Your task to perform on an android device: Show me popular games on the Play Store Image 0: 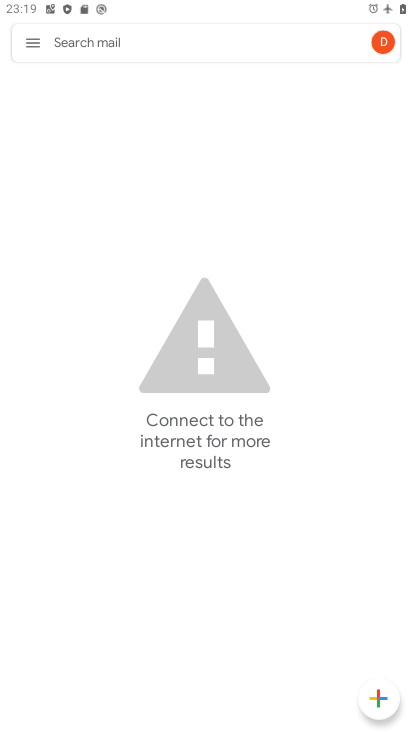
Step 0: press home button
Your task to perform on an android device: Show me popular games on the Play Store Image 1: 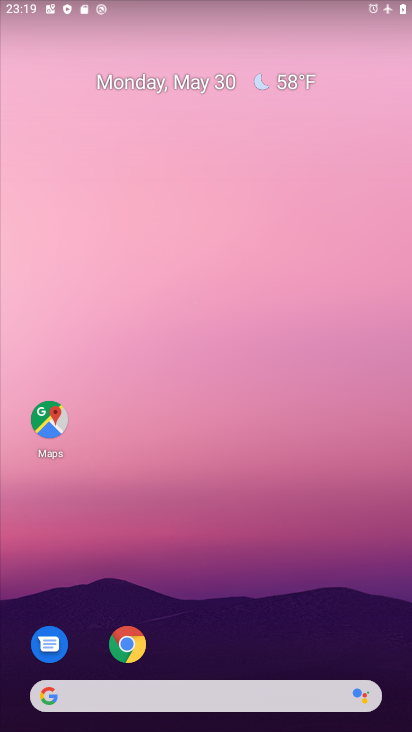
Step 1: drag from (380, 656) to (331, 91)
Your task to perform on an android device: Show me popular games on the Play Store Image 2: 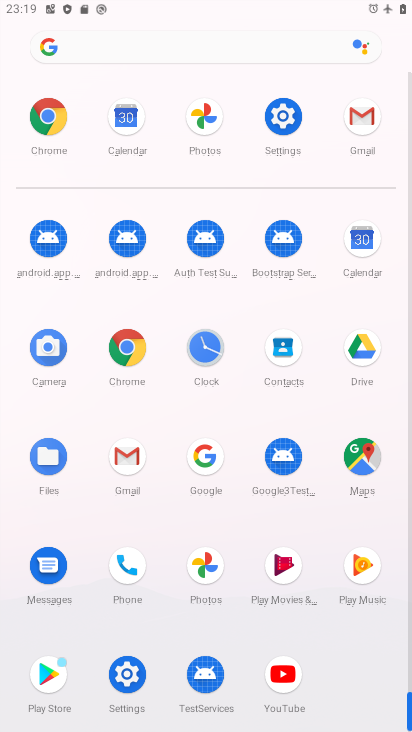
Step 2: click (44, 671)
Your task to perform on an android device: Show me popular games on the Play Store Image 3: 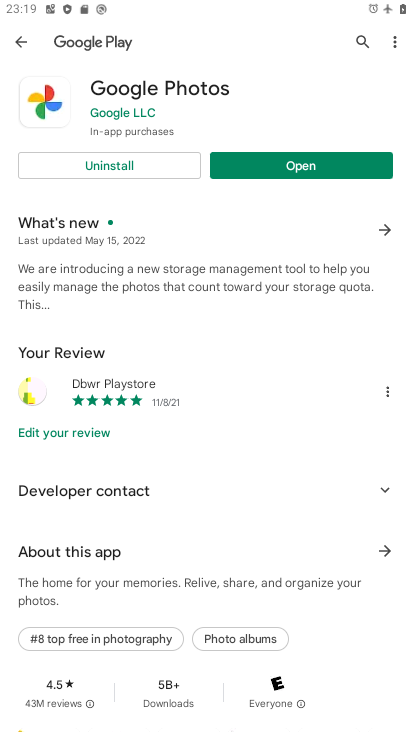
Step 3: press back button
Your task to perform on an android device: Show me popular games on the Play Store Image 4: 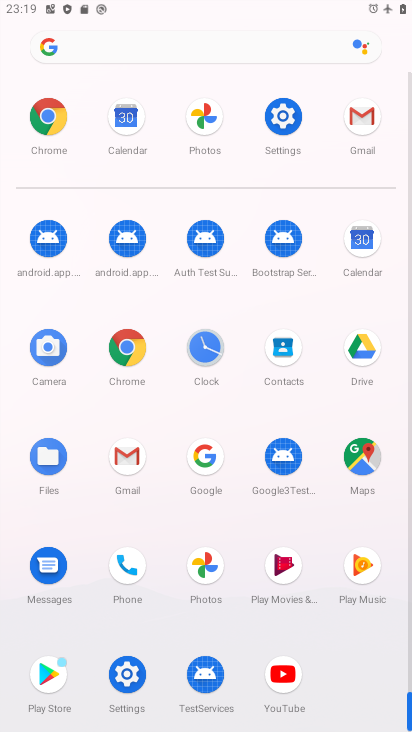
Step 4: click (55, 675)
Your task to perform on an android device: Show me popular games on the Play Store Image 5: 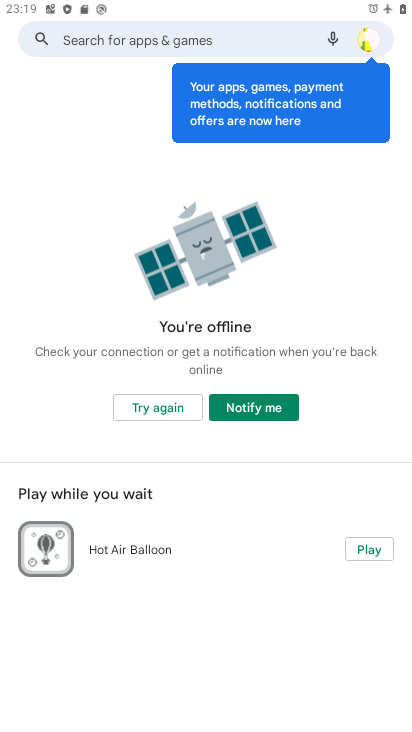
Step 5: click (165, 406)
Your task to perform on an android device: Show me popular games on the Play Store Image 6: 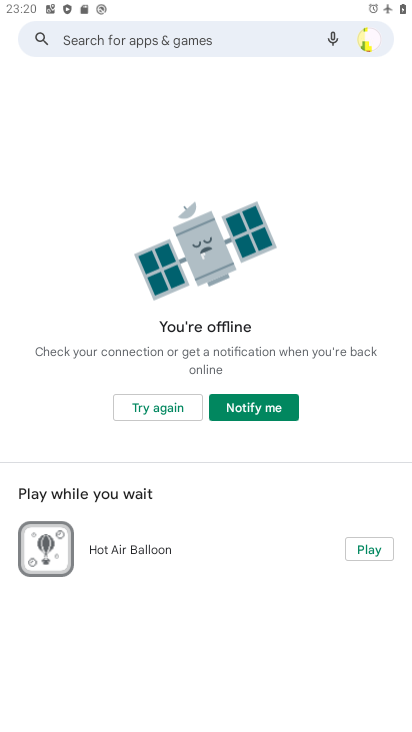
Step 6: task complete